Your task to perform on an android device: Search for duracell triple a on bestbuy.com, select the first entry, and add it to the cart. Image 0: 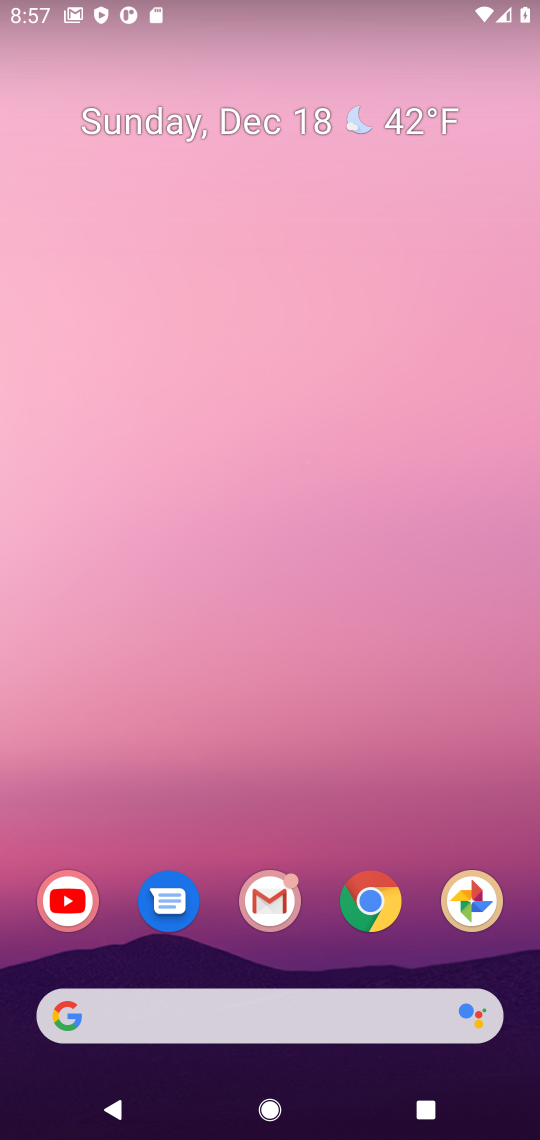
Step 0: click (388, 903)
Your task to perform on an android device: Search for duracell triple a on bestbuy.com, select the first entry, and add it to the cart. Image 1: 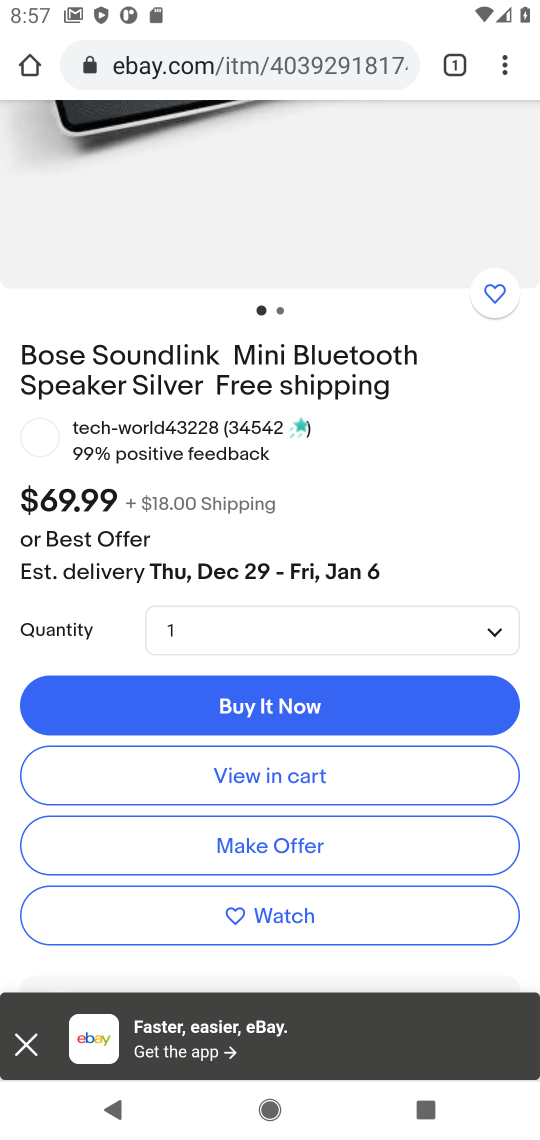
Step 1: click (287, 841)
Your task to perform on an android device: Search for duracell triple a on bestbuy.com, select the first entry, and add it to the cart. Image 2: 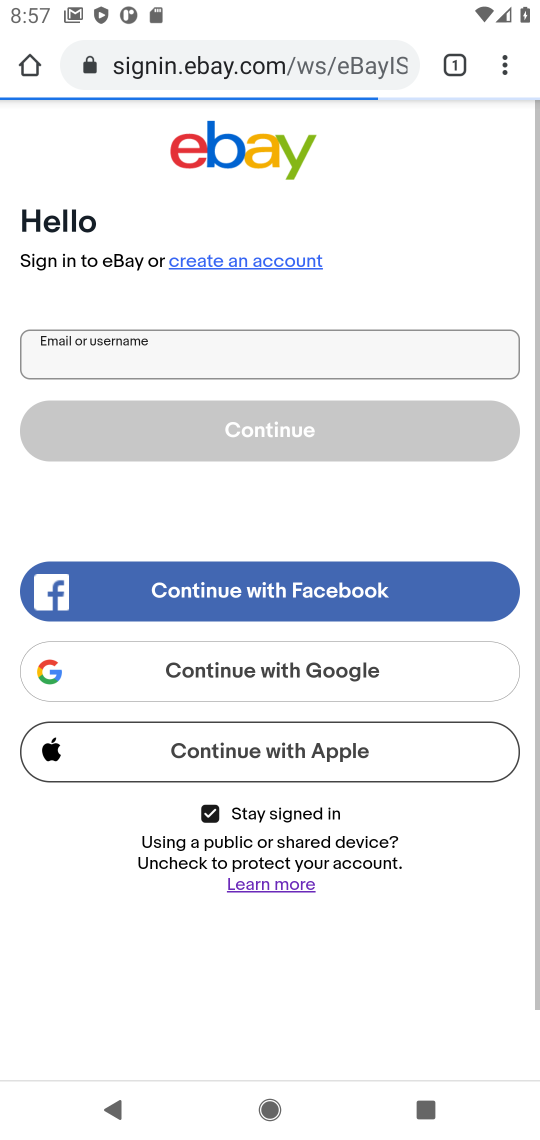
Step 2: task complete